Your task to perform on an android device: Check the news Image 0: 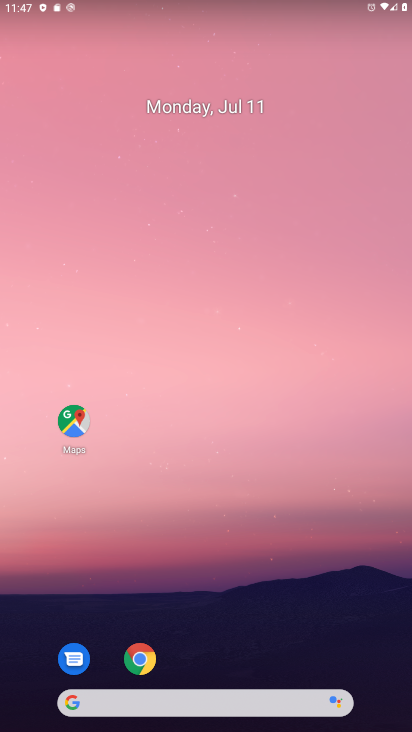
Step 0: drag from (220, 476) to (216, 119)
Your task to perform on an android device: Check the news Image 1: 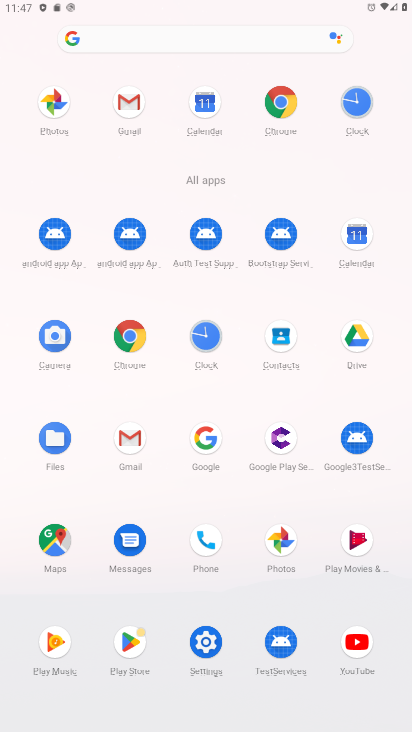
Step 1: click (184, 35)
Your task to perform on an android device: Check the news Image 2: 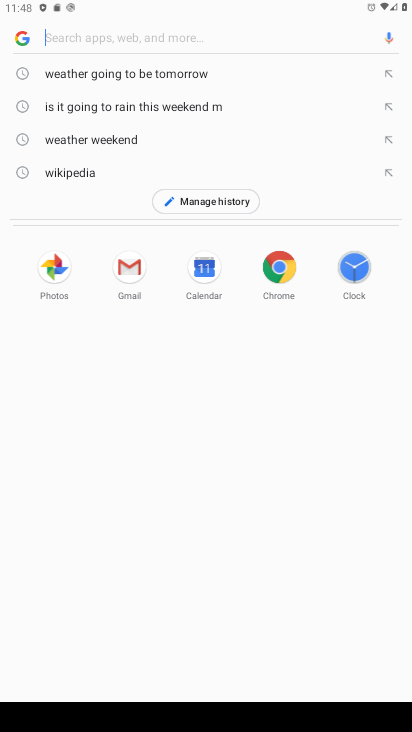
Step 2: type "news"
Your task to perform on an android device: Check the news Image 3: 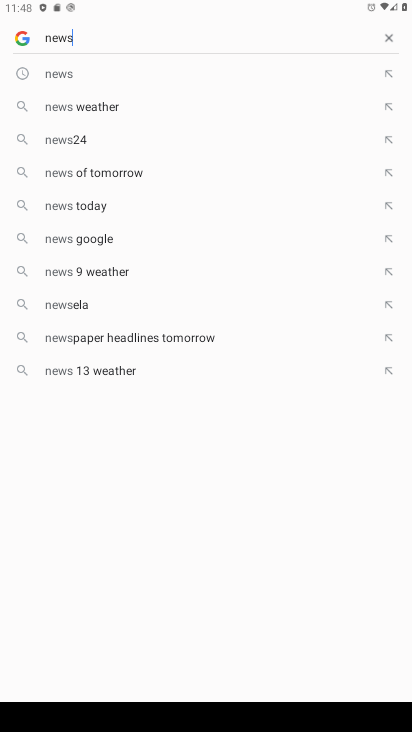
Step 3: click (61, 64)
Your task to perform on an android device: Check the news Image 4: 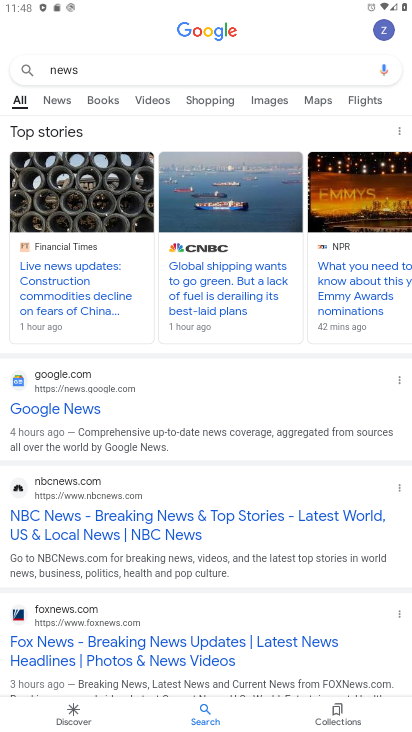
Step 4: task complete